Your task to perform on an android device: Do I have any events today? Image 0: 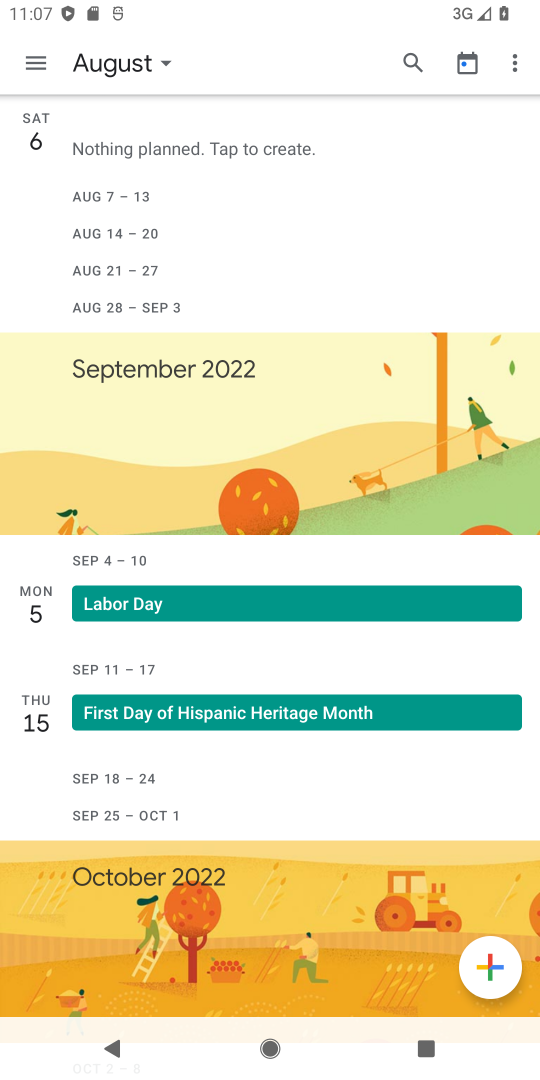
Step 0: click (137, 59)
Your task to perform on an android device: Do I have any events today? Image 1: 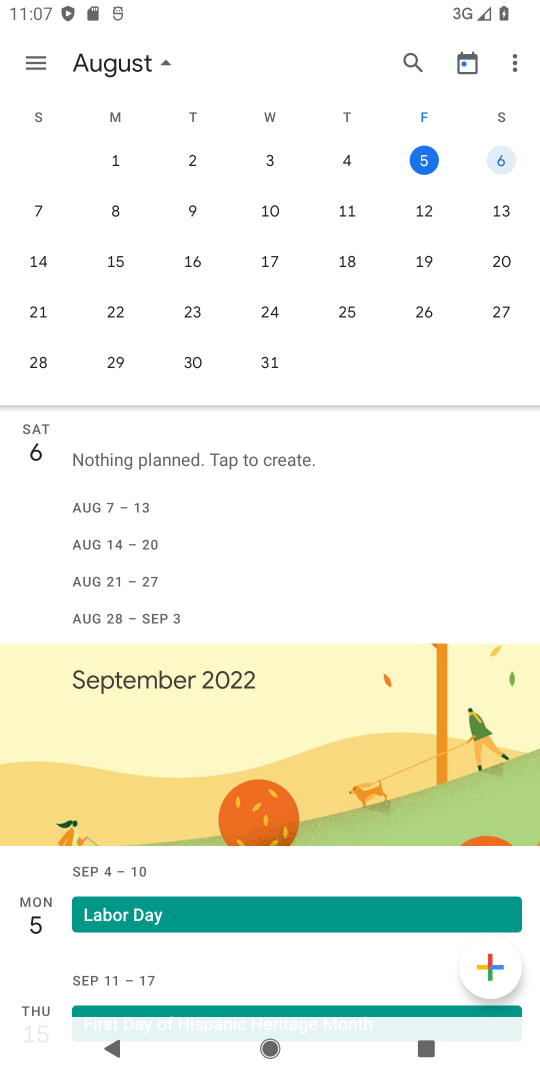
Step 1: click (418, 156)
Your task to perform on an android device: Do I have any events today? Image 2: 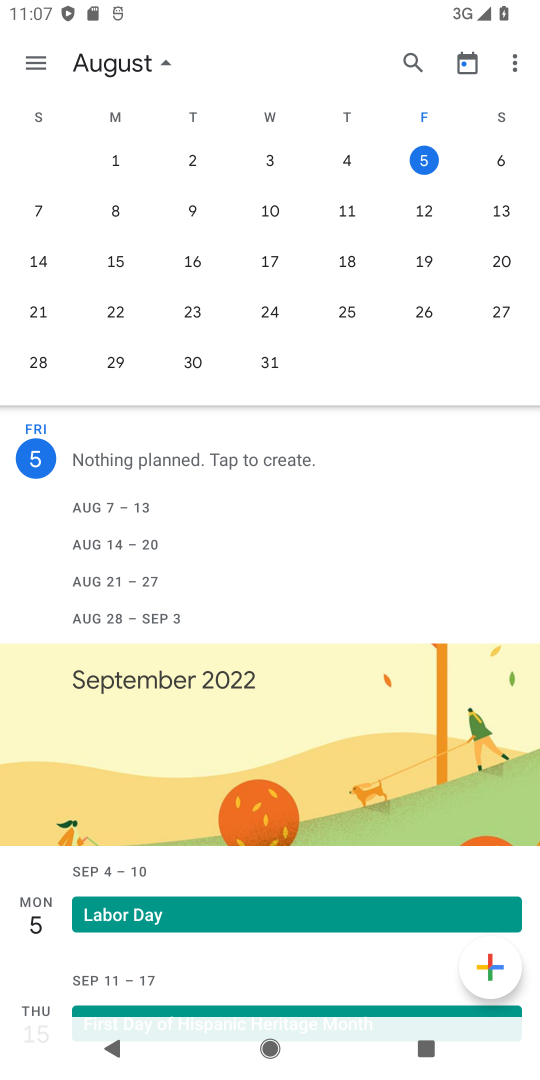
Step 2: task complete